Your task to perform on an android device: Open Google Chrome Image 0: 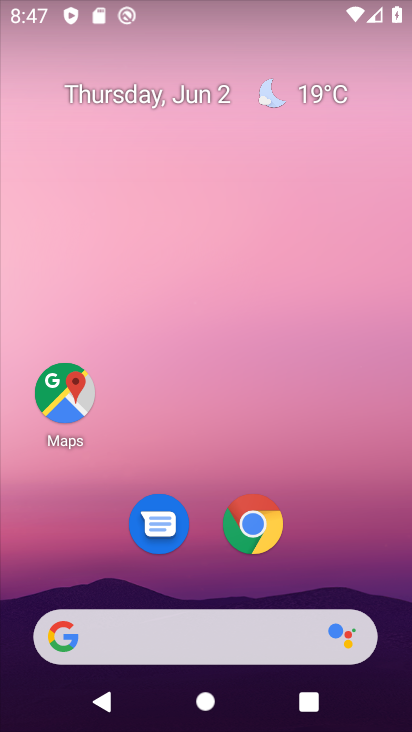
Step 0: click (256, 523)
Your task to perform on an android device: Open Google Chrome Image 1: 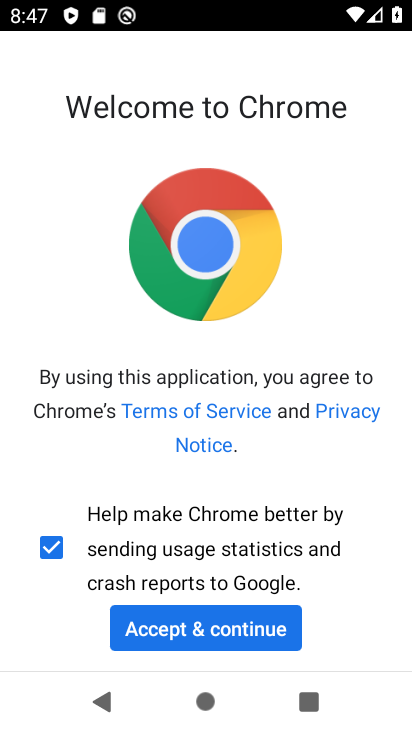
Step 1: click (277, 620)
Your task to perform on an android device: Open Google Chrome Image 2: 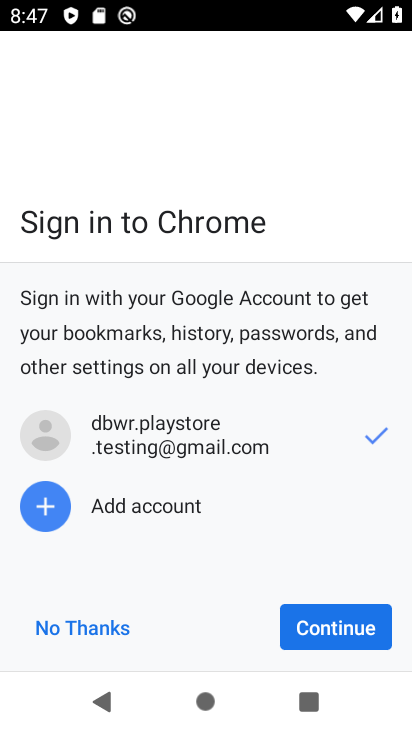
Step 2: click (298, 627)
Your task to perform on an android device: Open Google Chrome Image 3: 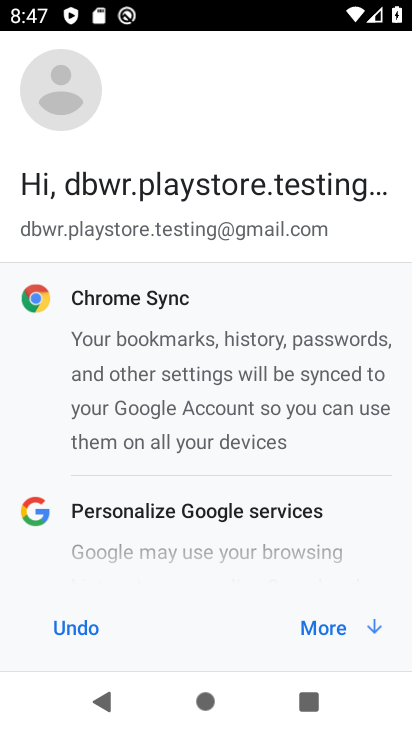
Step 3: click (309, 630)
Your task to perform on an android device: Open Google Chrome Image 4: 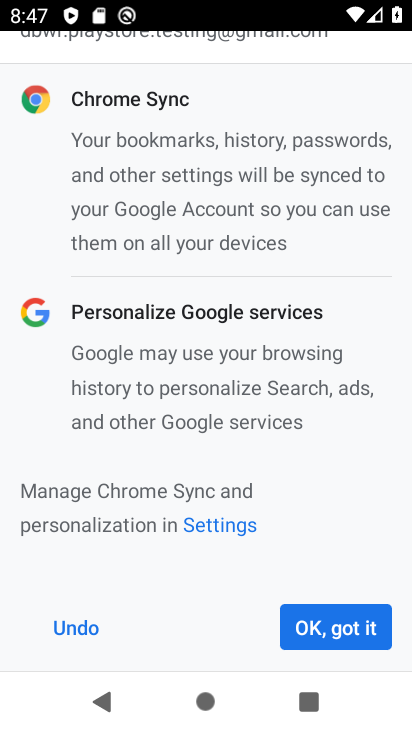
Step 4: click (311, 627)
Your task to perform on an android device: Open Google Chrome Image 5: 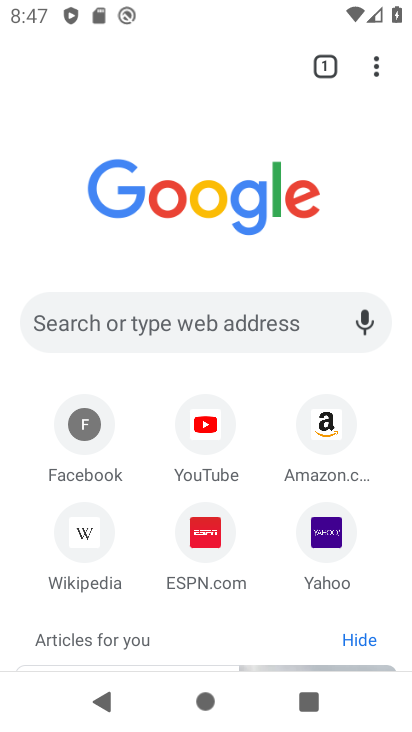
Step 5: task complete